Your task to perform on an android device: Open Yahoo.com Image 0: 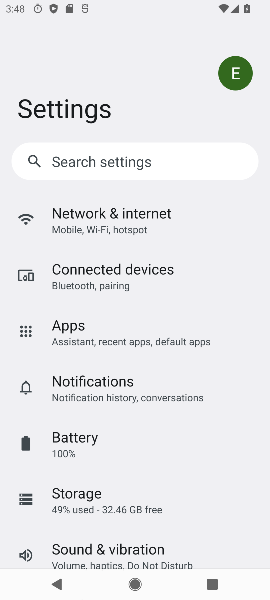
Step 0: press back button
Your task to perform on an android device: Open Yahoo.com Image 1: 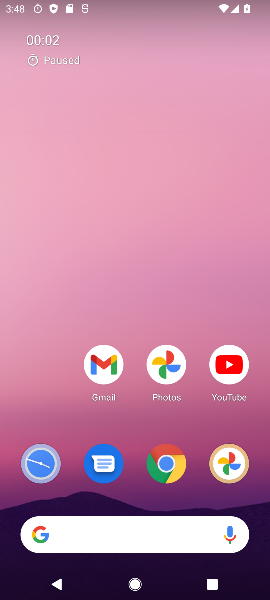
Step 1: press home button
Your task to perform on an android device: Open Yahoo.com Image 2: 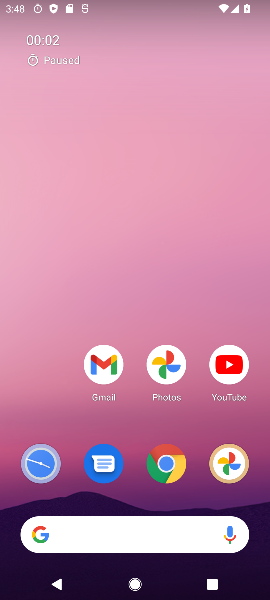
Step 2: drag from (204, 523) to (136, 124)
Your task to perform on an android device: Open Yahoo.com Image 3: 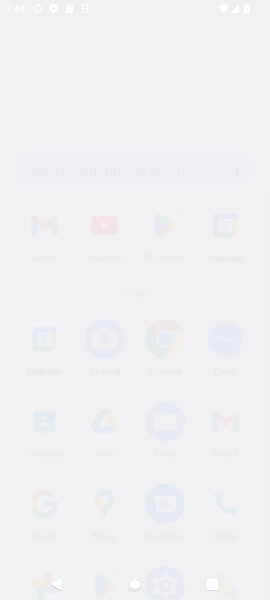
Step 3: drag from (177, 398) to (137, 37)
Your task to perform on an android device: Open Yahoo.com Image 4: 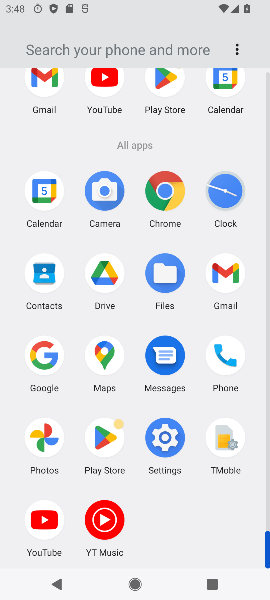
Step 4: click (152, 195)
Your task to perform on an android device: Open Yahoo.com Image 5: 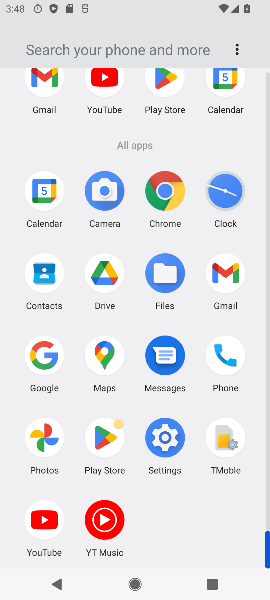
Step 5: click (156, 197)
Your task to perform on an android device: Open Yahoo.com Image 6: 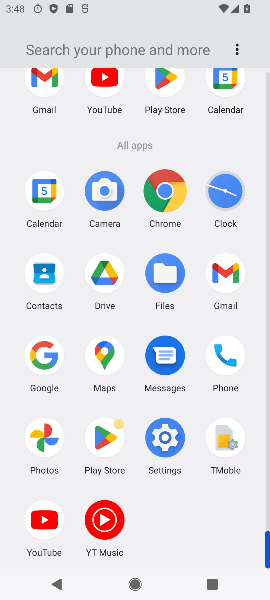
Step 6: click (159, 199)
Your task to perform on an android device: Open Yahoo.com Image 7: 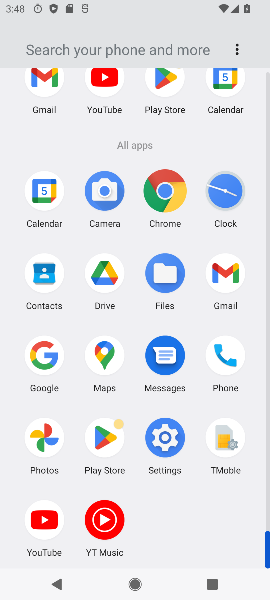
Step 7: click (160, 199)
Your task to perform on an android device: Open Yahoo.com Image 8: 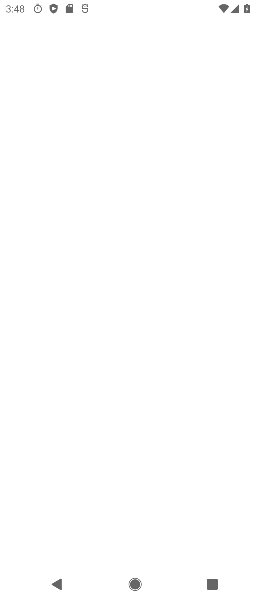
Step 8: click (162, 199)
Your task to perform on an android device: Open Yahoo.com Image 9: 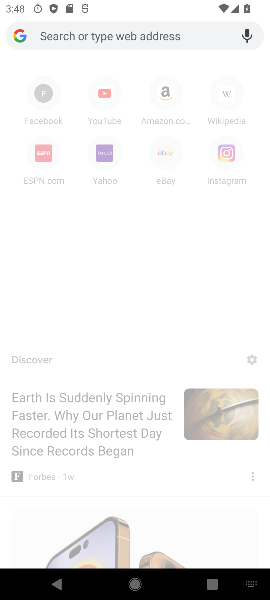
Step 9: click (104, 155)
Your task to perform on an android device: Open Yahoo.com Image 10: 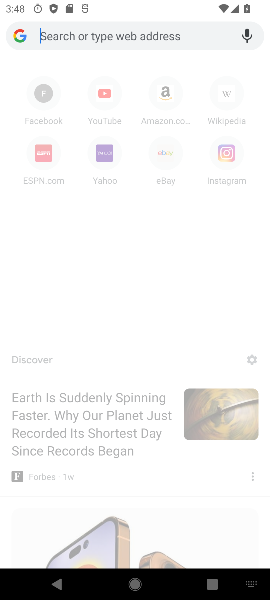
Step 10: click (104, 155)
Your task to perform on an android device: Open Yahoo.com Image 11: 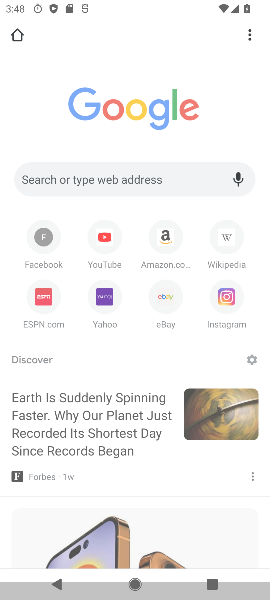
Step 11: click (104, 155)
Your task to perform on an android device: Open Yahoo.com Image 12: 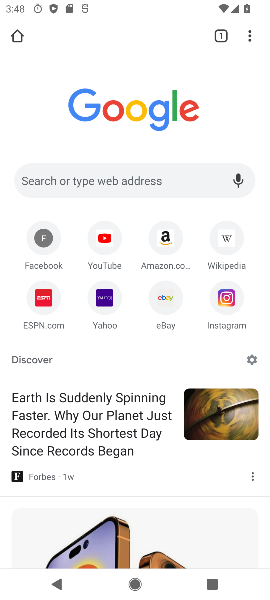
Step 12: click (107, 155)
Your task to perform on an android device: Open Yahoo.com Image 13: 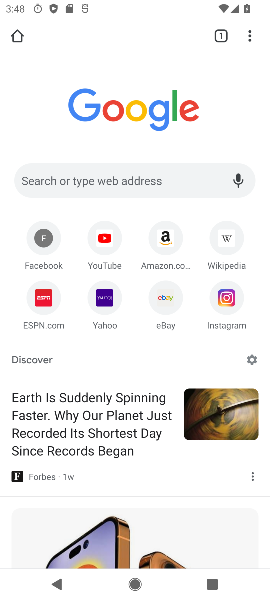
Step 13: click (105, 292)
Your task to perform on an android device: Open Yahoo.com Image 14: 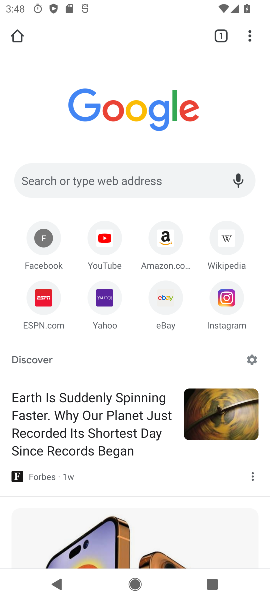
Step 14: click (114, 315)
Your task to perform on an android device: Open Yahoo.com Image 15: 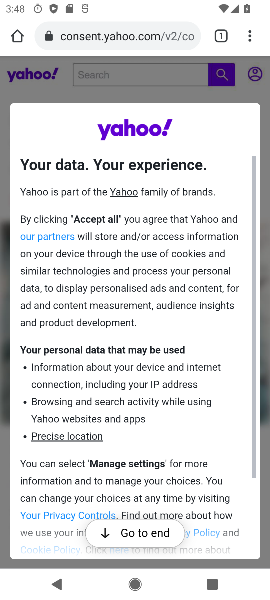
Step 15: task complete